Your task to perform on an android device: Open the calendar and show me this week's events? Image 0: 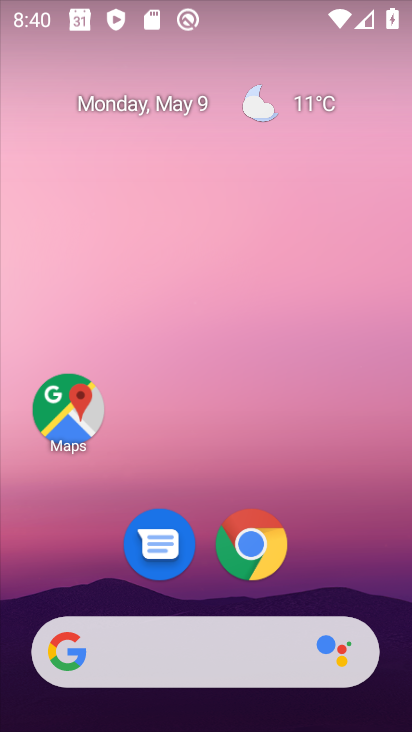
Step 0: drag from (398, 443) to (396, 231)
Your task to perform on an android device: Open the calendar and show me this week's events? Image 1: 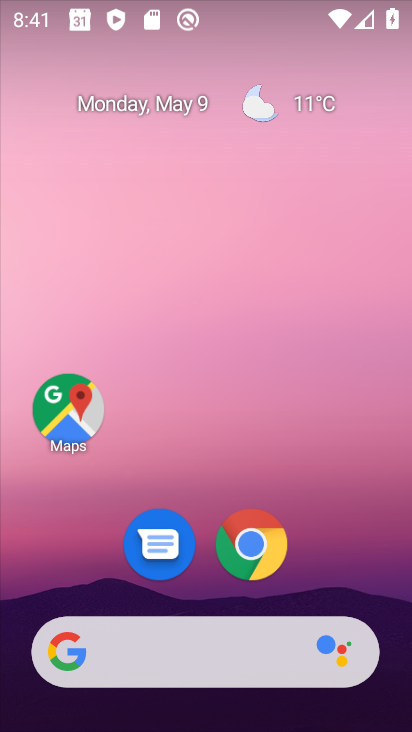
Step 1: click (398, 229)
Your task to perform on an android device: Open the calendar and show me this week's events? Image 2: 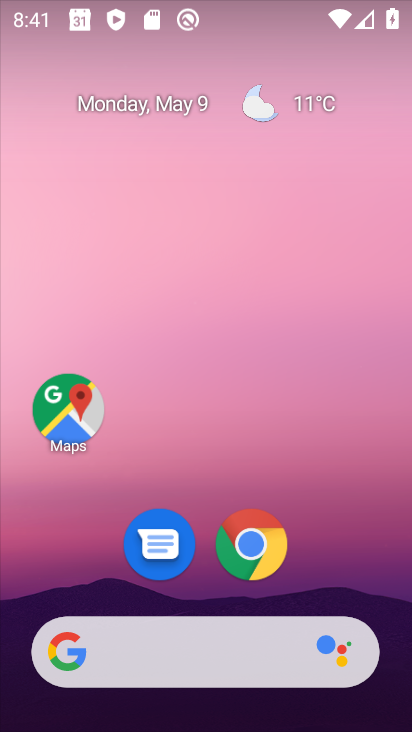
Step 2: drag from (385, 652) to (382, 159)
Your task to perform on an android device: Open the calendar and show me this week's events? Image 3: 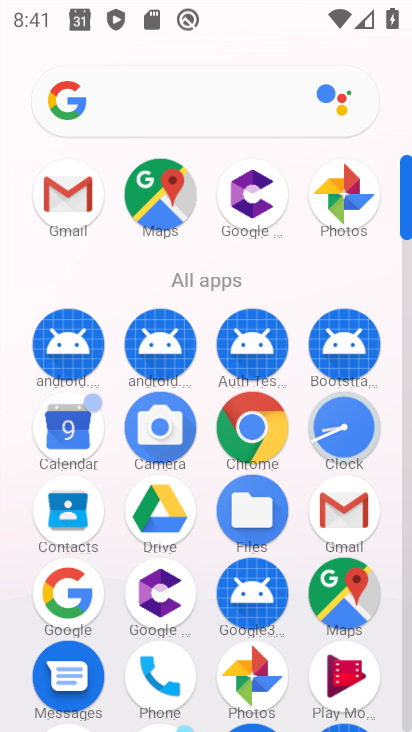
Step 3: click (69, 433)
Your task to perform on an android device: Open the calendar and show me this week's events? Image 4: 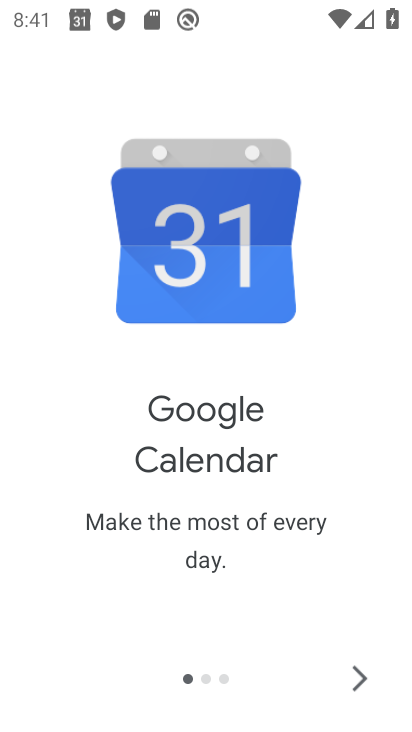
Step 4: click (352, 678)
Your task to perform on an android device: Open the calendar and show me this week's events? Image 5: 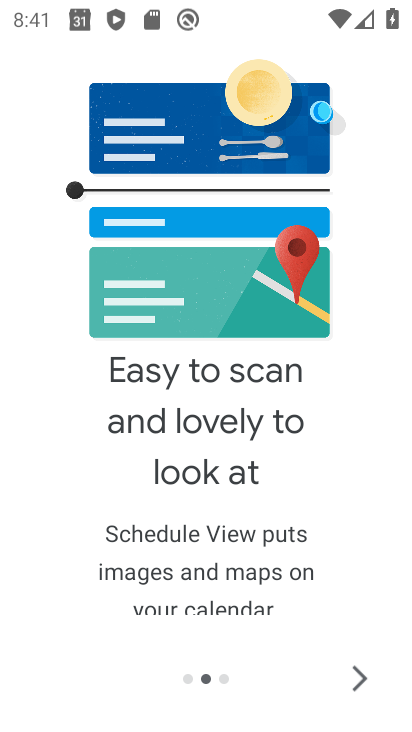
Step 5: click (351, 677)
Your task to perform on an android device: Open the calendar and show me this week's events? Image 6: 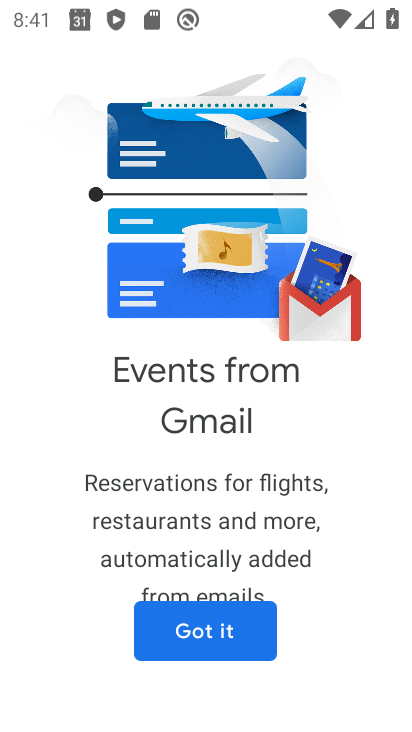
Step 6: click (172, 635)
Your task to perform on an android device: Open the calendar and show me this week's events? Image 7: 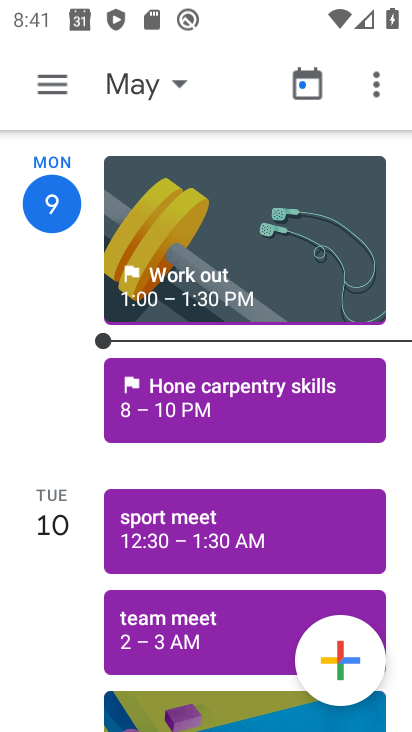
Step 7: click (177, 87)
Your task to perform on an android device: Open the calendar and show me this week's events? Image 8: 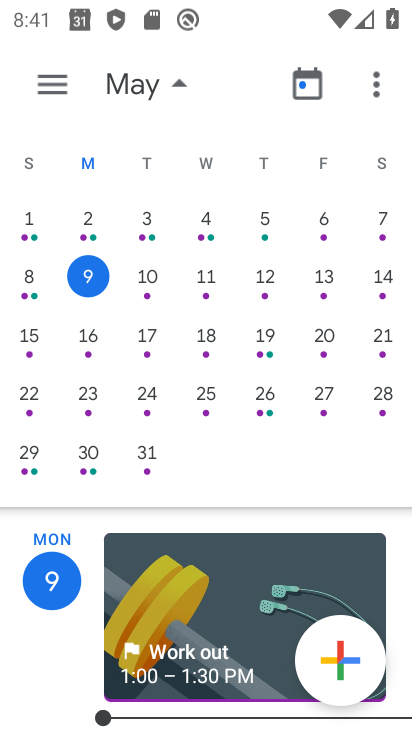
Step 8: click (142, 269)
Your task to perform on an android device: Open the calendar and show me this week's events? Image 9: 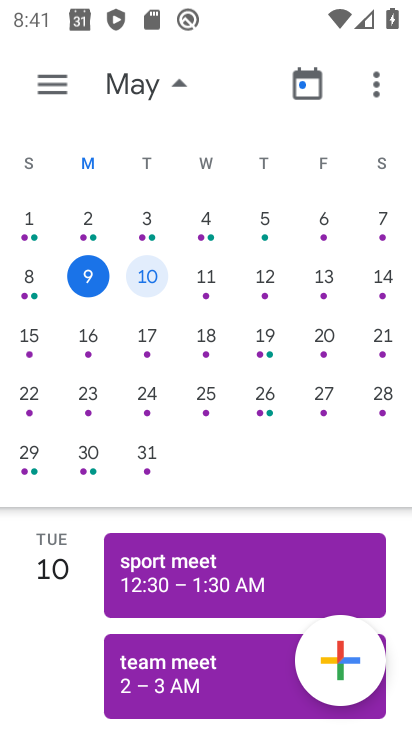
Step 9: click (55, 89)
Your task to perform on an android device: Open the calendar and show me this week's events? Image 10: 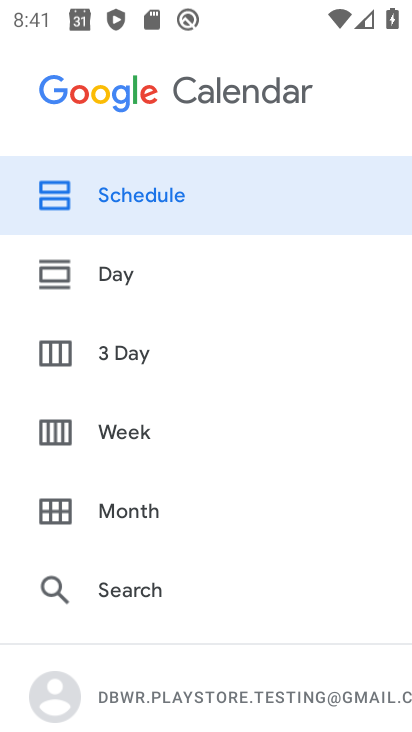
Step 10: click (116, 432)
Your task to perform on an android device: Open the calendar and show me this week's events? Image 11: 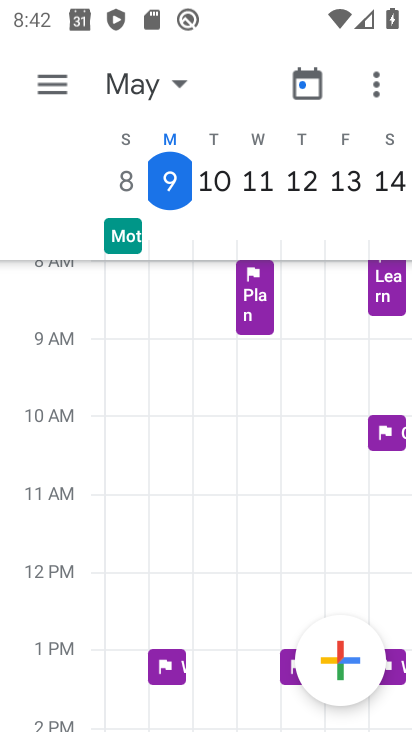
Step 11: task complete